Your task to perform on an android device: toggle pop-ups in chrome Image 0: 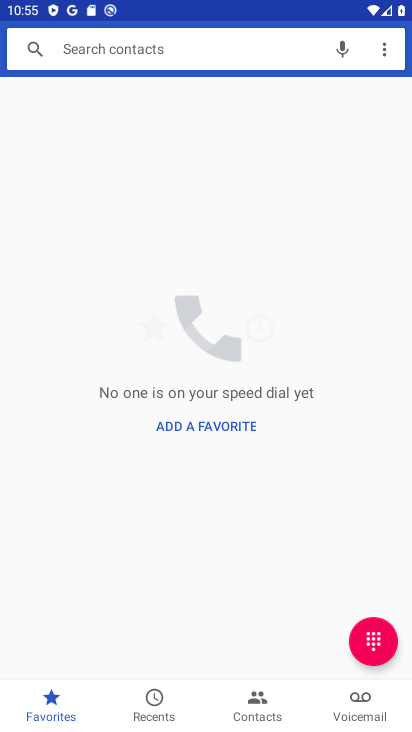
Step 0: press home button
Your task to perform on an android device: toggle pop-ups in chrome Image 1: 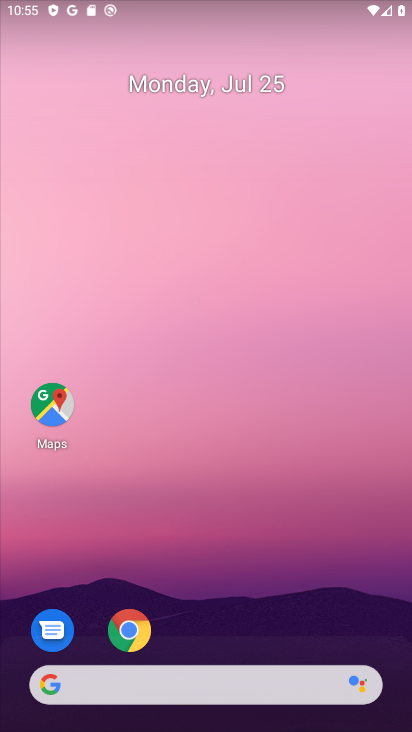
Step 1: click (134, 632)
Your task to perform on an android device: toggle pop-ups in chrome Image 2: 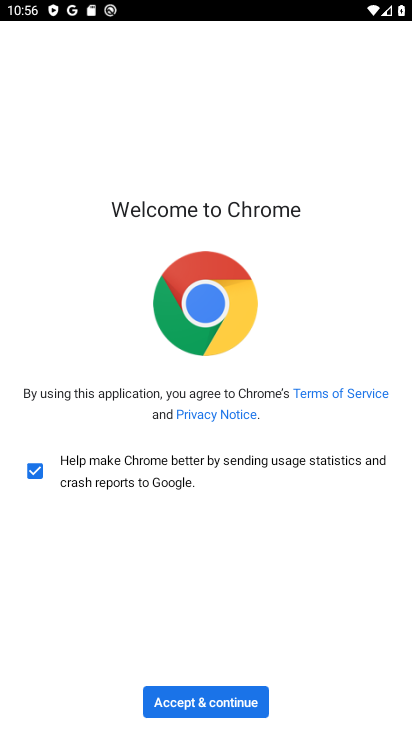
Step 2: click (190, 695)
Your task to perform on an android device: toggle pop-ups in chrome Image 3: 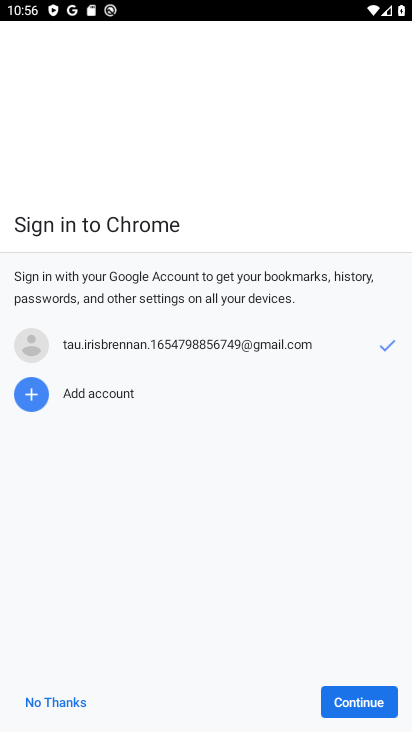
Step 3: click (35, 711)
Your task to perform on an android device: toggle pop-ups in chrome Image 4: 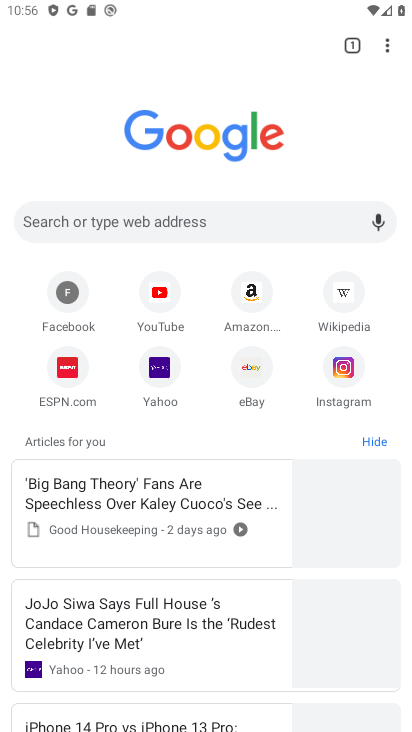
Step 4: click (388, 46)
Your task to perform on an android device: toggle pop-ups in chrome Image 5: 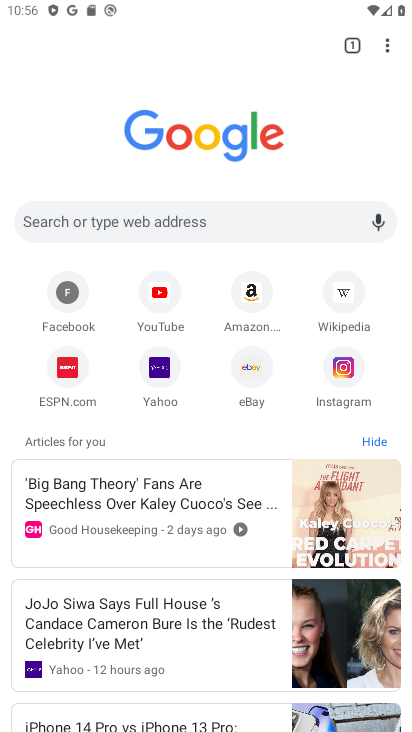
Step 5: click (389, 46)
Your task to perform on an android device: toggle pop-ups in chrome Image 6: 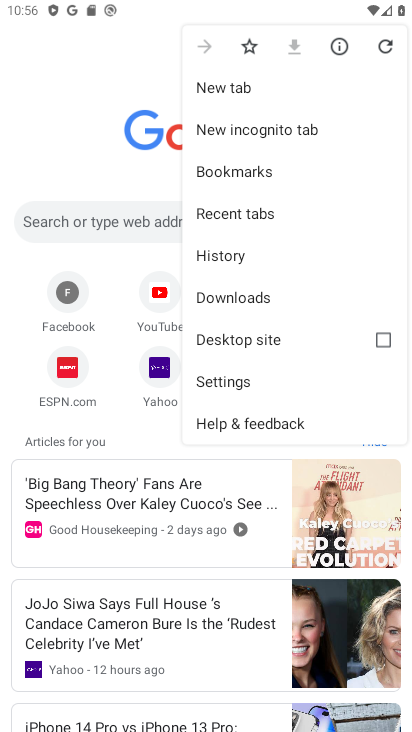
Step 6: click (221, 385)
Your task to perform on an android device: toggle pop-ups in chrome Image 7: 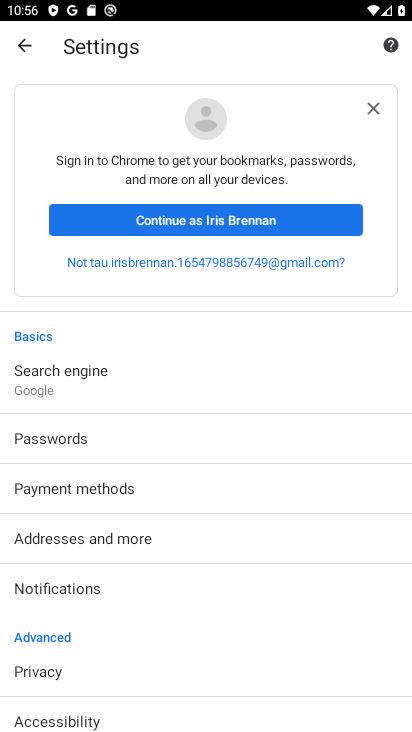
Step 7: drag from (145, 570) to (150, 235)
Your task to perform on an android device: toggle pop-ups in chrome Image 8: 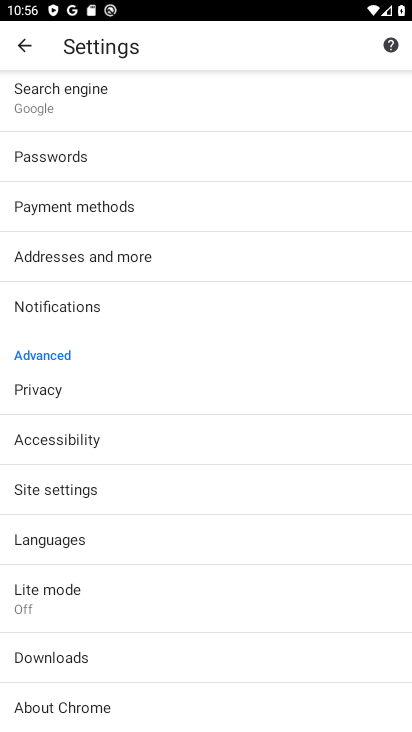
Step 8: click (85, 494)
Your task to perform on an android device: toggle pop-ups in chrome Image 9: 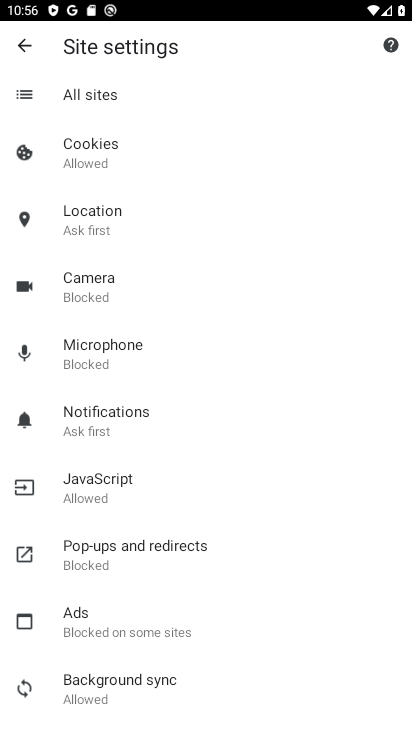
Step 9: click (106, 551)
Your task to perform on an android device: toggle pop-ups in chrome Image 10: 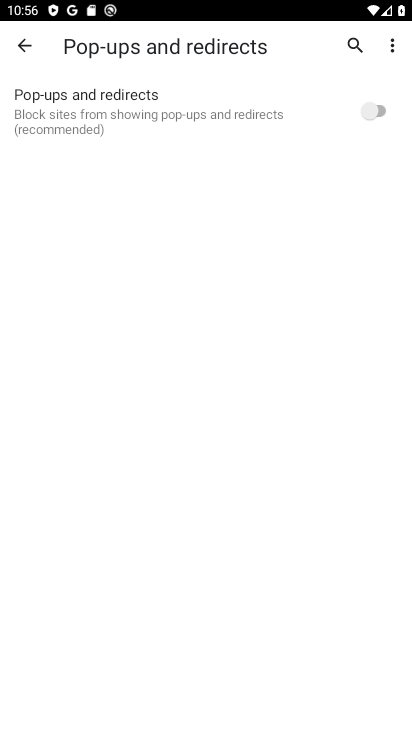
Step 10: click (371, 111)
Your task to perform on an android device: toggle pop-ups in chrome Image 11: 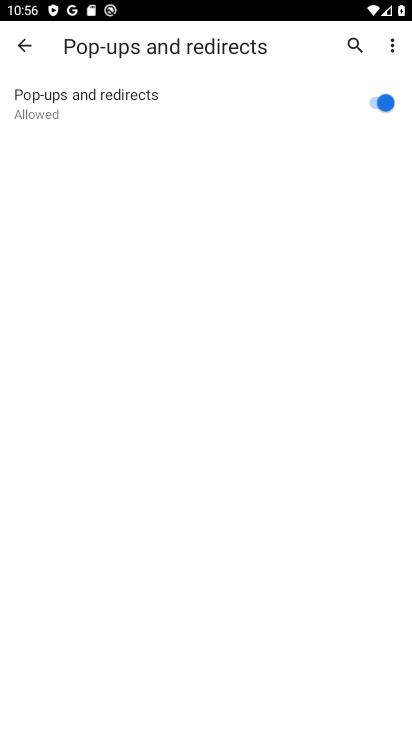
Step 11: task complete